Your task to perform on an android device: Is it going to rain today? Image 0: 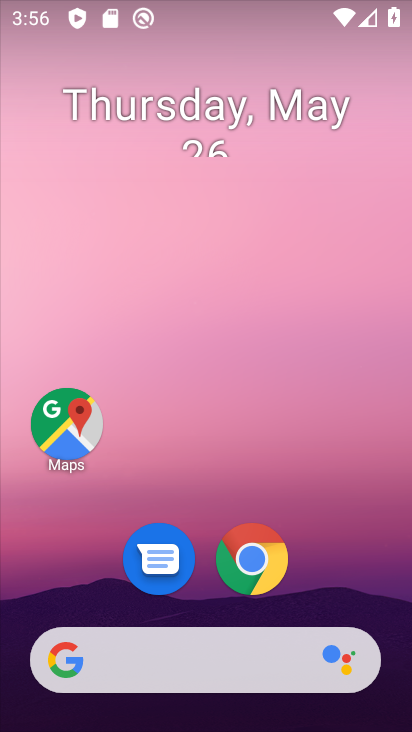
Step 0: drag from (337, 523) to (174, 35)
Your task to perform on an android device: Is it going to rain today? Image 1: 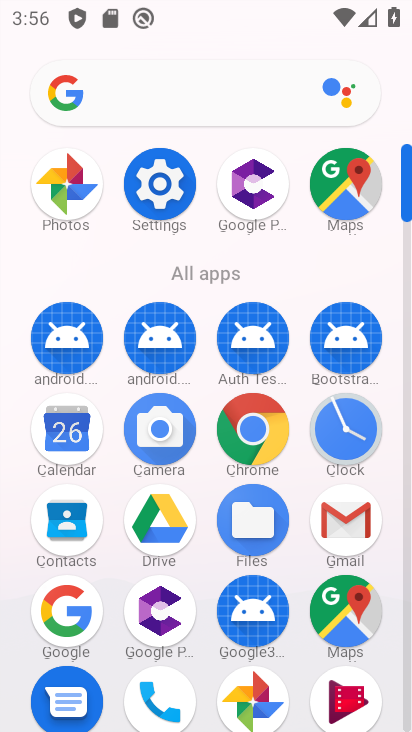
Step 1: click (90, 619)
Your task to perform on an android device: Is it going to rain today? Image 2: 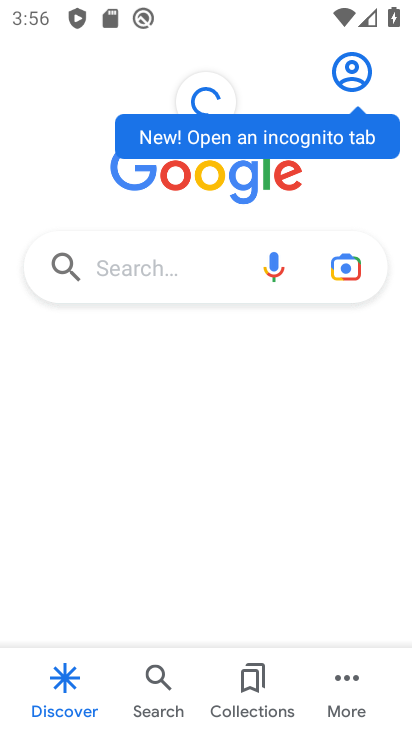
Step 2: click (151, 279)
Your task to perform on an android device: Is it going to rain today? Image 3: 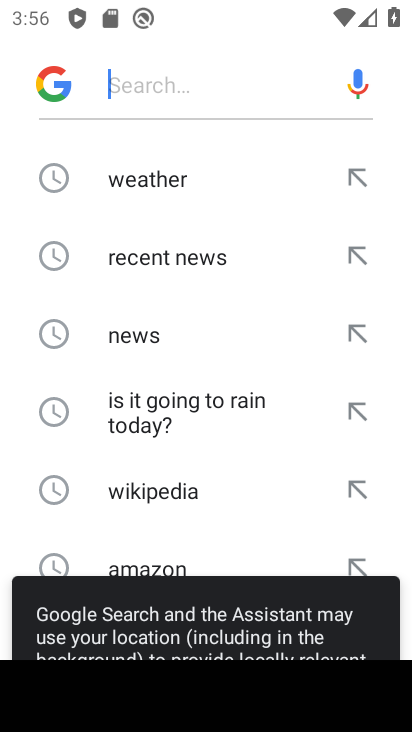
Step 3: click (179, 178)
Your task to perform on an android device: Is it going to rain today? Image 4: 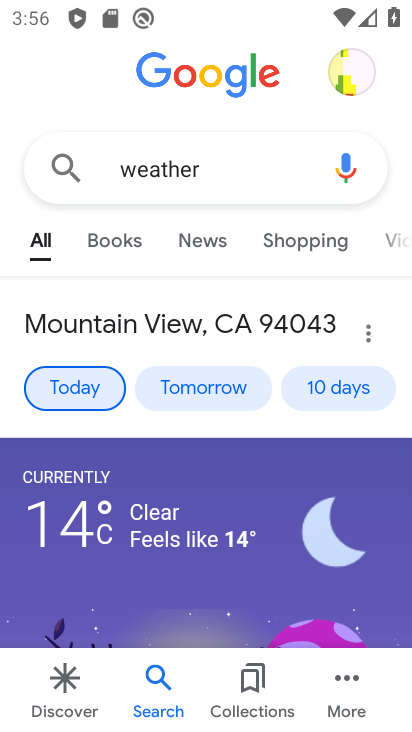
Step 4: task complete